Your task to perform on an android device: Open Chrome and go to settings Image 0: 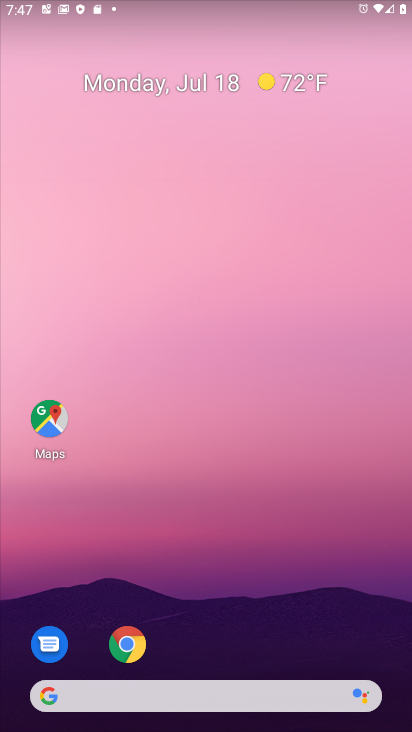
Step 0: drag from (394, 682) to (222, 62)
Your task to perform on an android device: Open Chrome and go to settings Image 1: 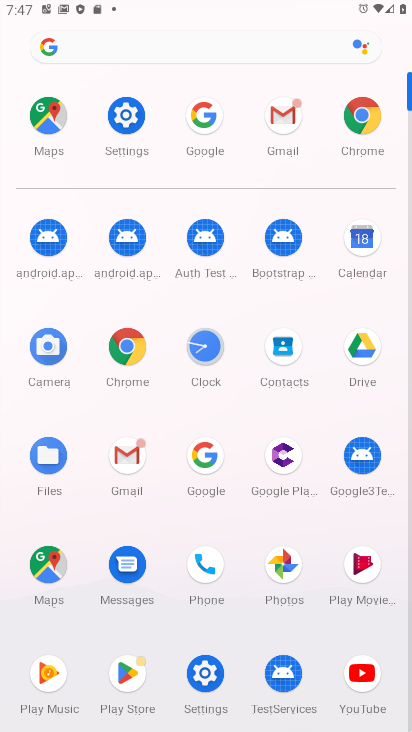
Step 1: click (119, 343)
Your task to perform on an android device: Open Chrome and go to settings Image 2: 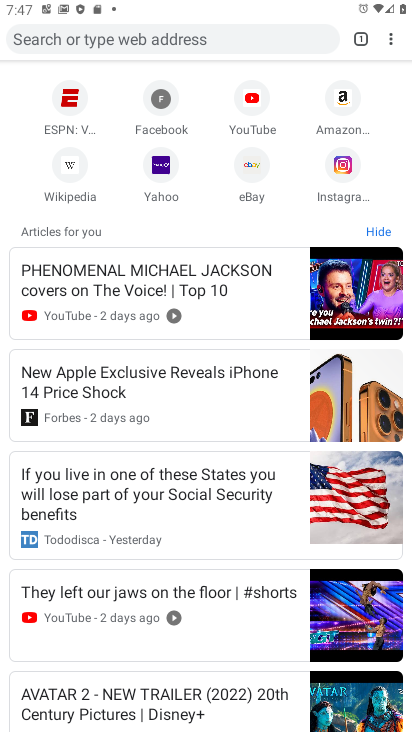
Step 2: click (390, 36)
Your task to perform on an android device: Open Chrome and go to settings Image 3: 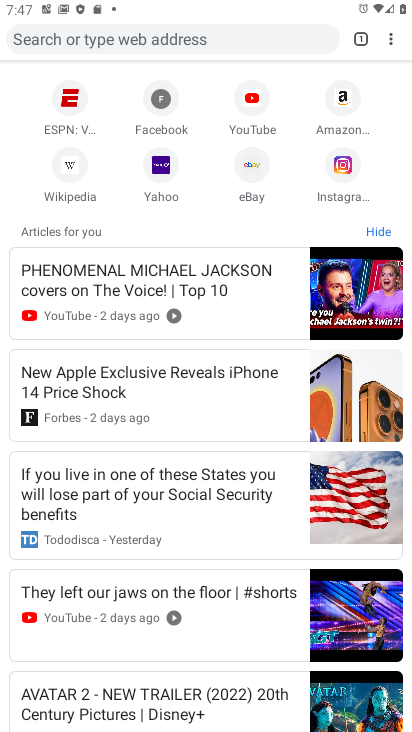
Step 3: click (390, 36)
Your task to perform on an android device: Open Chrome and go to settings Image 4: 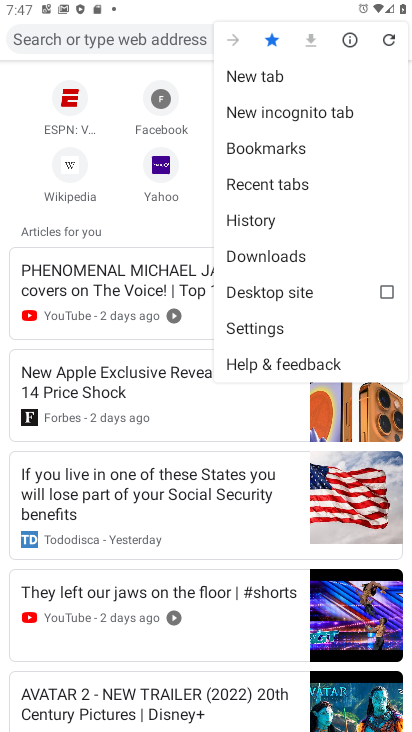
Step 4: click (279, 323)
Your task to perform on an android device: Open Chrome and go to settings Image 5: 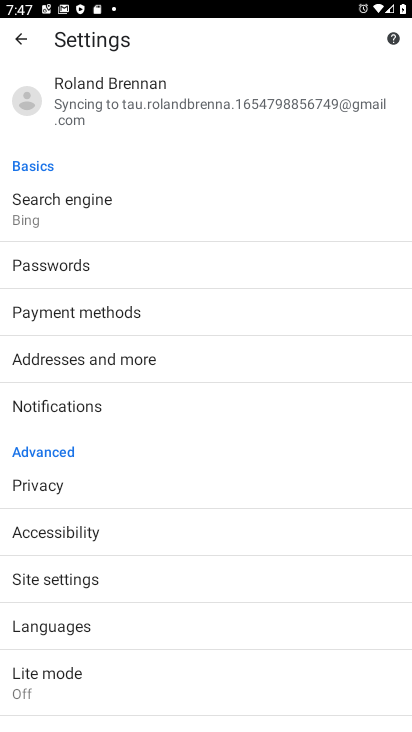
Step 5: task complete